Your task to perform on an android device: create a new album in the google photos Image 0: 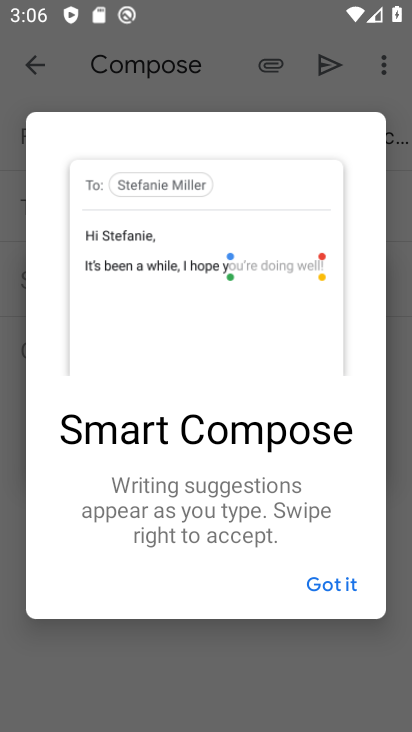
Step 0: press home button
Your task to perform on an android device: create a new album in the google photos Image 1: 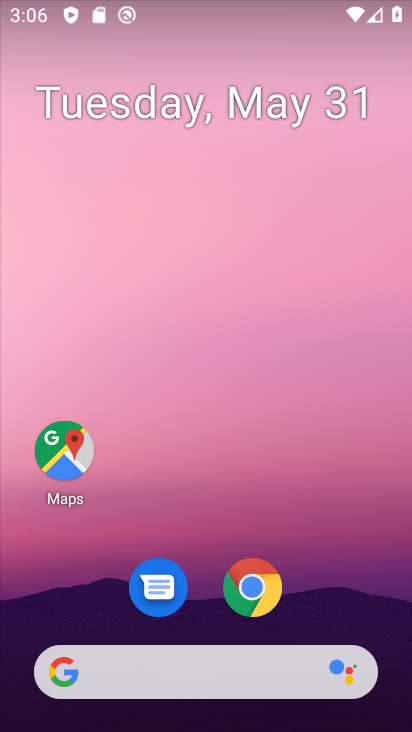
Step 1: drag from (320, 623) to (307, 34)
Your task to perform on an android device: create a new album in the google photos Image 2: 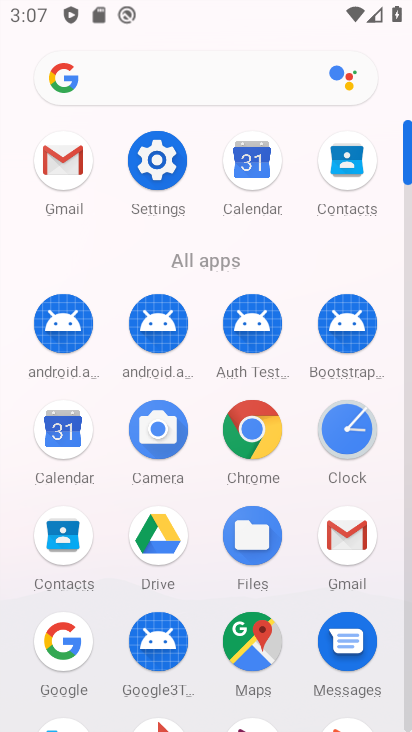
Step 2: drag from (206, 582) to (228, 80)
Your task to perform on an android device: create a new album in the google photos Image 3: 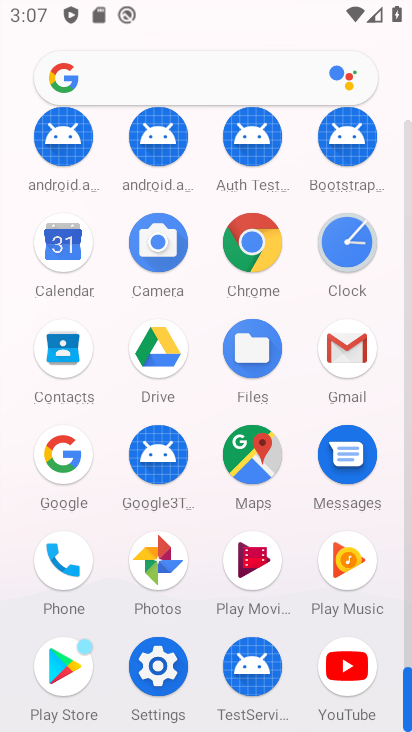
Step 3: click (155, 561)
Your task to perform on an android device: create a new album in the google photos Image 4: 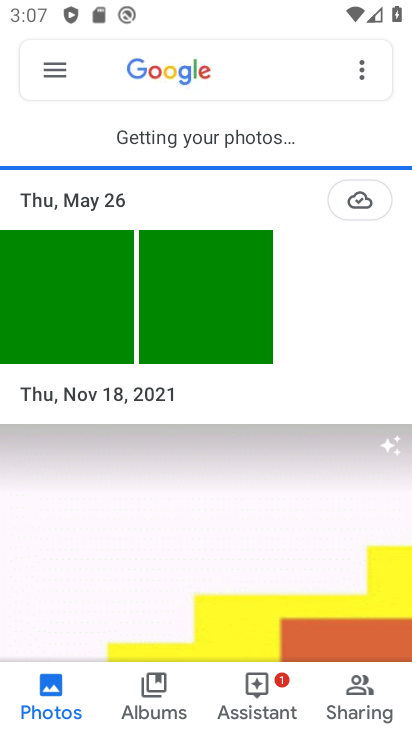
Step 4: click (163, 688)
Your task to perform on an android device: create a new album in the google photos Image 5: 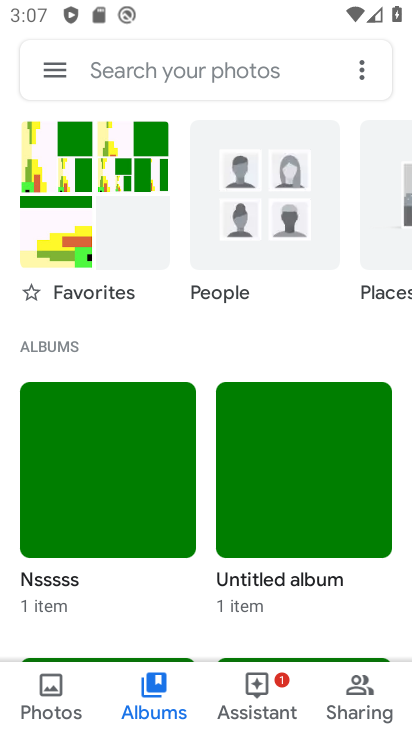
Step 5: click (353, 69)
Your task to perform on an android device: create a new album in the google photos Image 6: 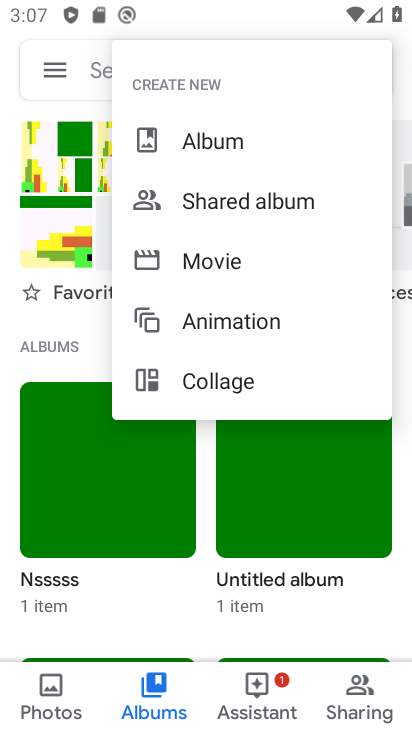
Step 6: click (272, 140)
Your task to perform on an android device: create a new album in the google photos Image 7: 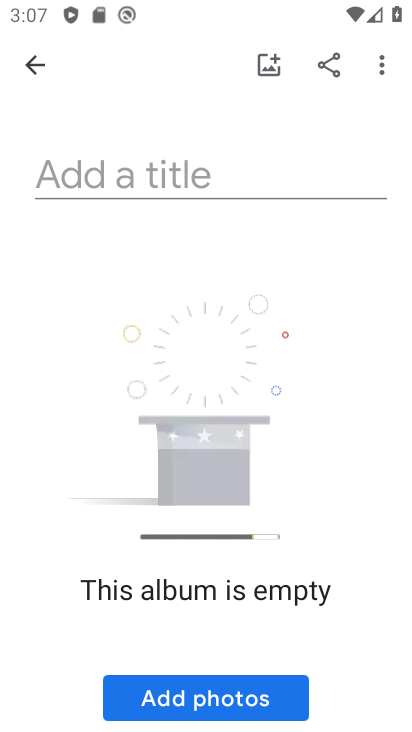
Step 7: click (153, 173)
Your task to perform on an android device: create a new album in the google photos Image 8: 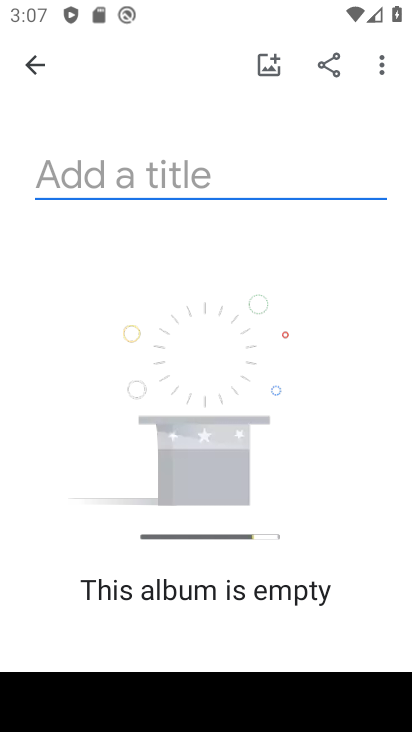
Step 8: type "ytrddfdf"
Your task to perform on an android device: create a new album in the google photos Image 9: 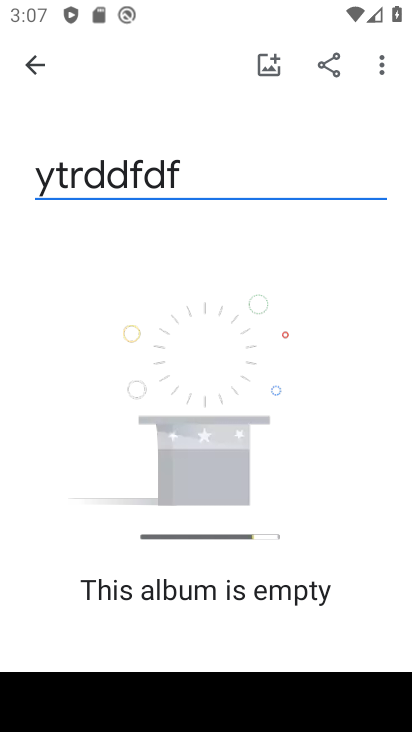
Step 9: click (274, 64)
Your task to perform on an android device: create a new album in the google photos Image 10: 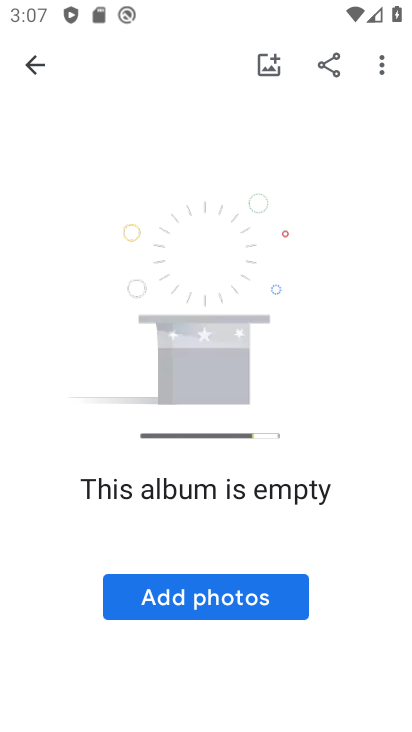
Step 10: click (245, 596)
Your task to perform on an android device: create a new album in the google photos Image 11: 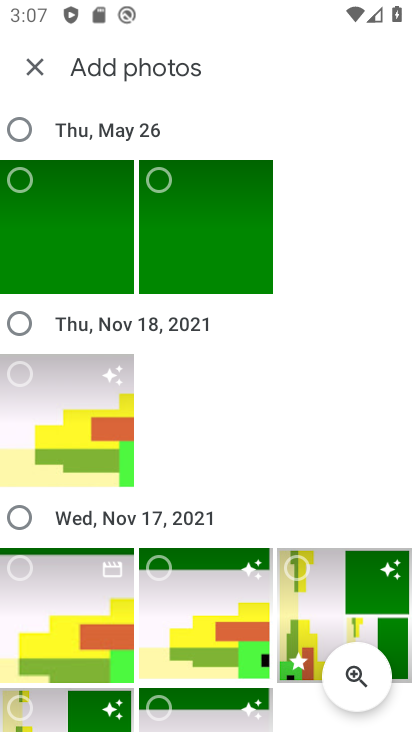
Step 11: click (54, 248)
Your task to perform on an android device: create a new album in the google photos Image 12: 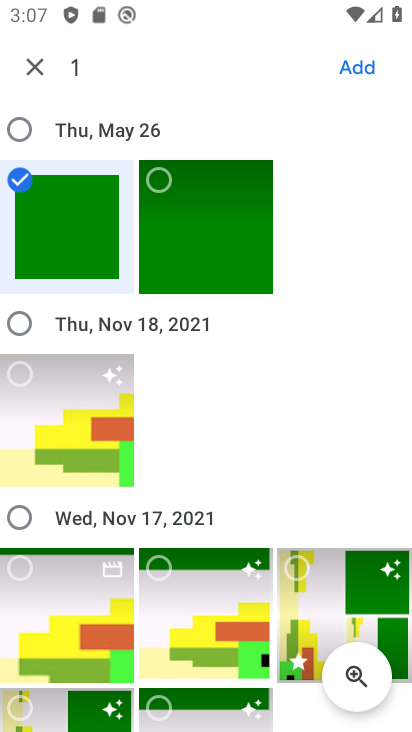
Step 12: click (368, 73)
Your task to perform on an android device: create a new album in the google photos Image 13: 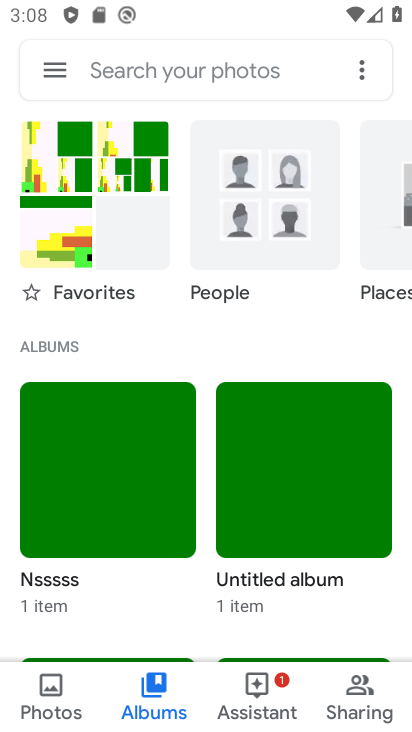
Step 13: task complete